Your task to perform on an android device: Search for Mexican restaurants on Maps Image 0: 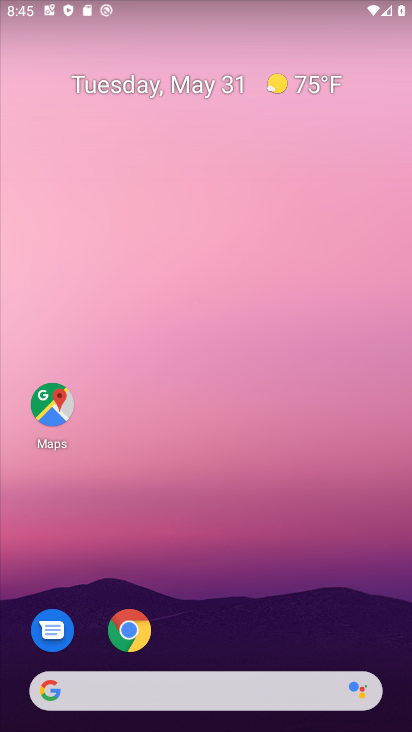
Step 0: drag from (245, 622) to (295, 304)
Your task to perform on an android device: Search for Mexican restaurants on Maps Image 1: 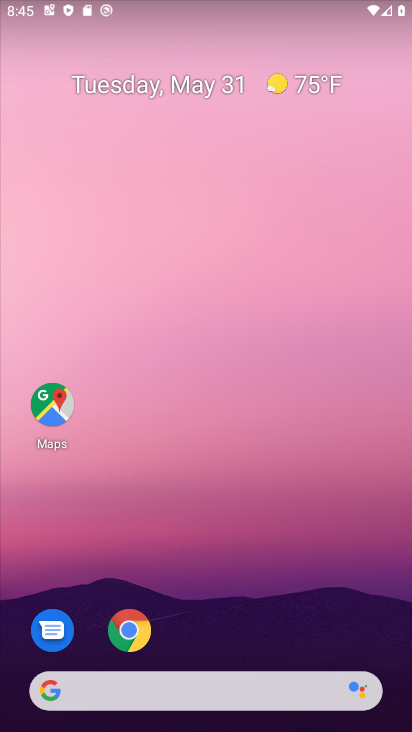
Step 1: drag from (241, 619) to (339, 166)
Your task to perform on an android device: Search for Mexican restaurants on Maps Image 2: 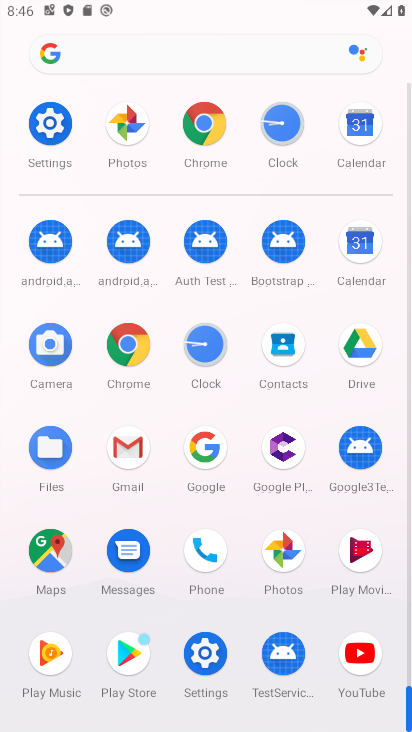
Step 2: click (53, 572)
Your task to perform on an android device: Search for Mexican restaurants on Maps Image 3: 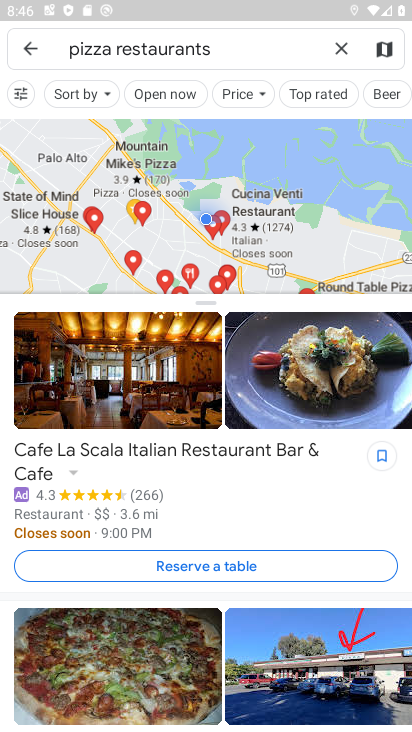
Step 3: click (344, 43)
Your task to perform on an android device: Search for Mexican restaurants on Maps Image 4: 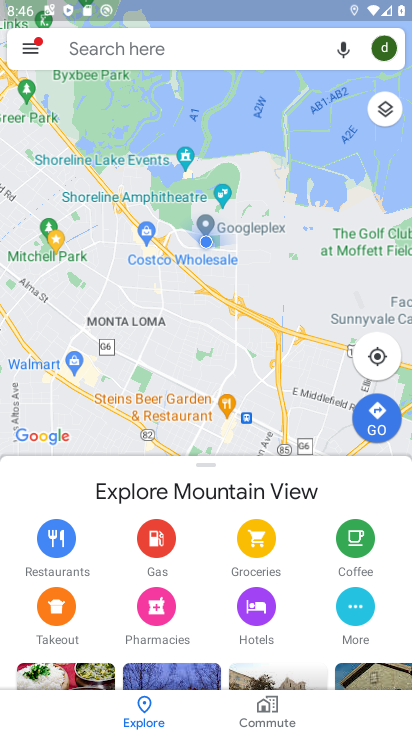
Step 4: click (237, 53)
Your task to perform on an android device: Search for Mexican restaurants on Maps Image 5: 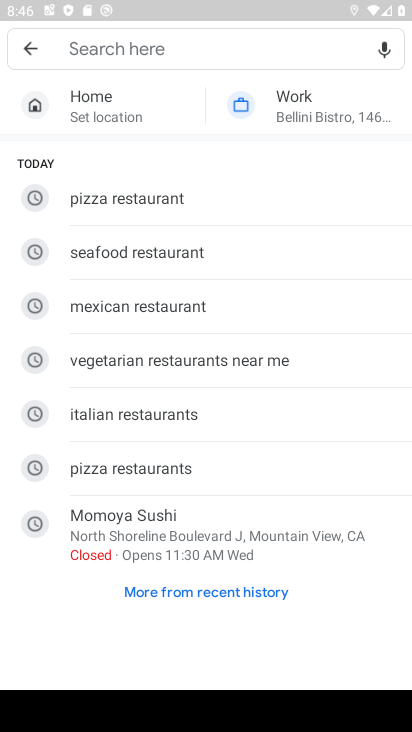
Step 5: click (163, 308)
Your task to perform on an android device: Search for Mexican restaurants on Maps Image 6: 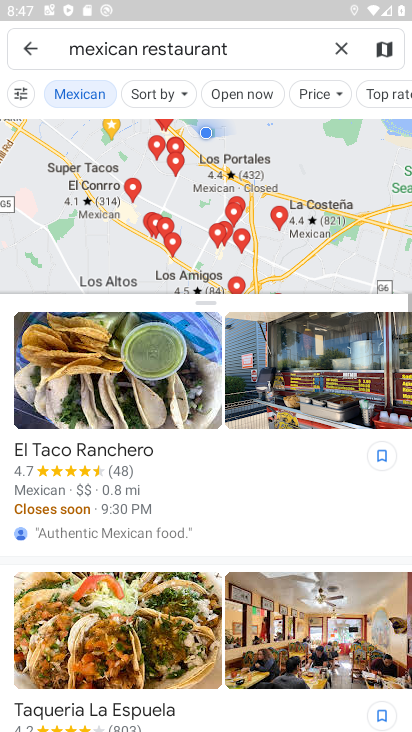
Step 6: task complete